Your task to perform on an android device: Do I have any events today? Image 0: 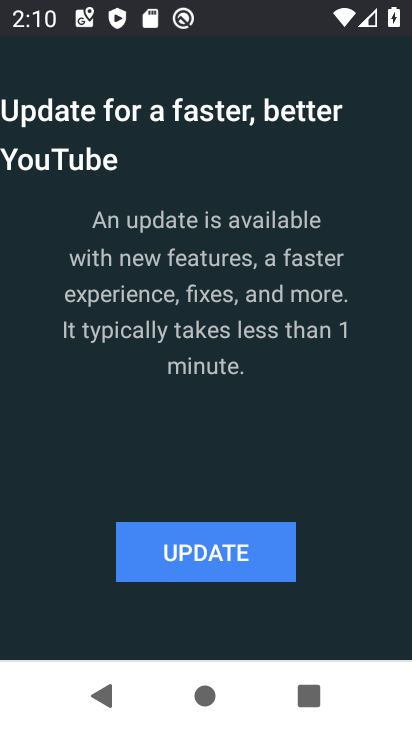
Step 0: press home button
Your task to perform on an android device: Do I have any events today? Image 1: 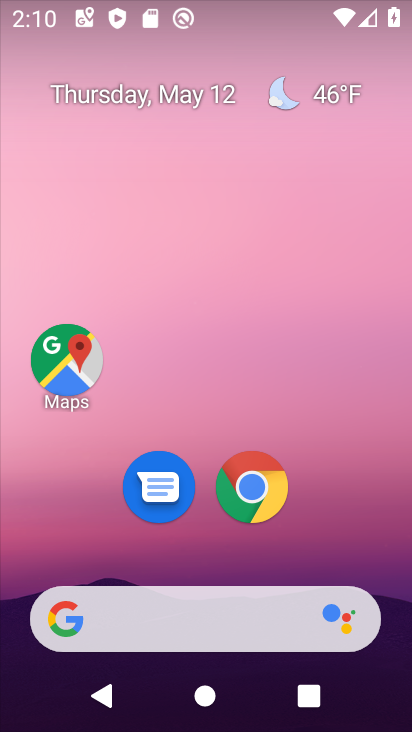
Step 1: drag from (217, 547) to (218, 36)
Your task to perform on an android device: Do I have any events today? Image 2: 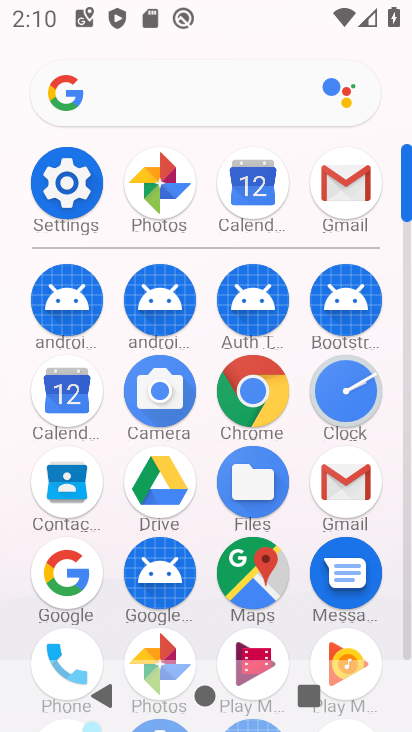
Step 2: click (78, 378)
Your task to perform on an android device: Do I have any events today? Image 3: 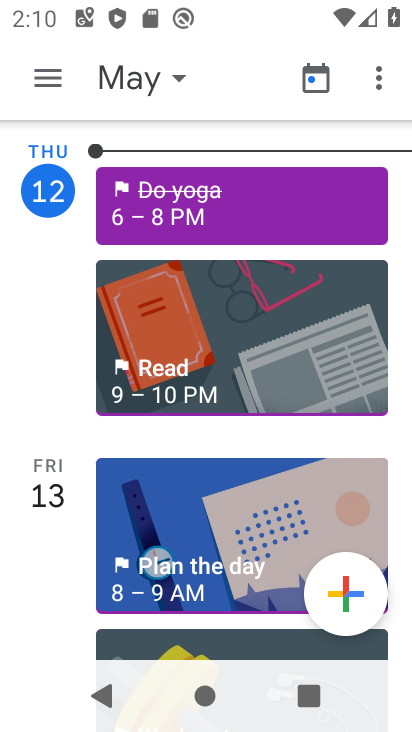
Step 3: click (109, 95)
Your task to perform on an android device: Do I have any events today? Image 4: 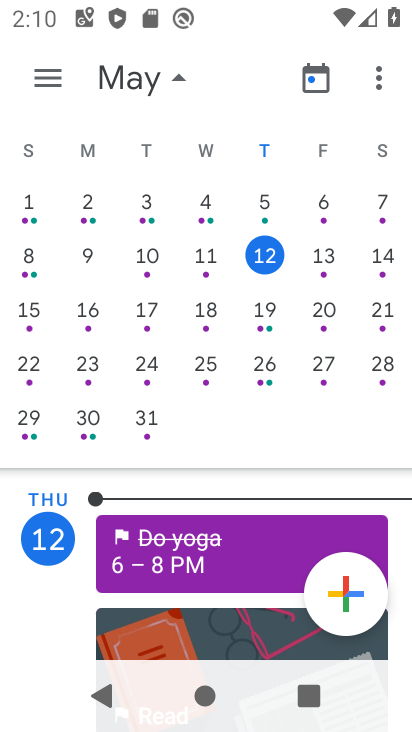
Step 4: click (254, 260)
Your task to perform on an android device: Do I have any events today? Image 5: 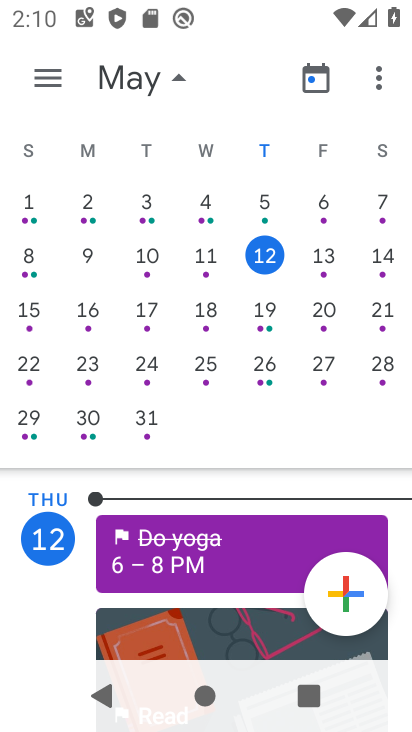
Step 5: task complete